Your task to perform on an android device: remove spam from my inbox in the gmail app Image 0: 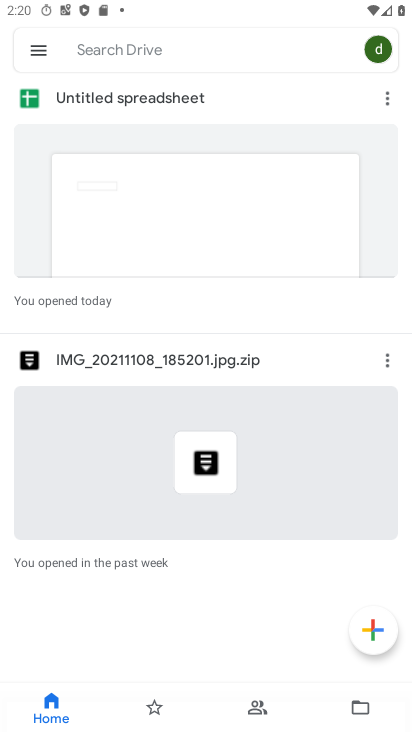
Step 0: press back button
Your task to perform on an android device: remove spam from my inbox in the gmail app Image 1: 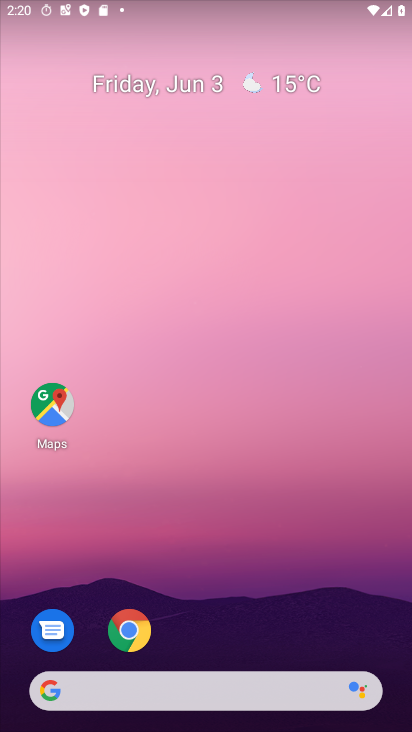
Step 1: drag from (265, 213) to (265, 22)
Your task to perform on an android device: remove spam from my inbox in the gmail app Image 2: 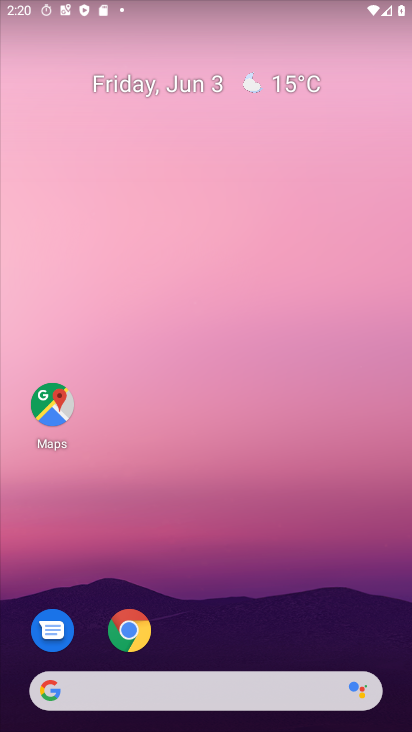
Step 2: drag from (362, 598) to (367, 45)
Your task to perform on an android device: remove spam from my inbox in the gmail app Image 3: 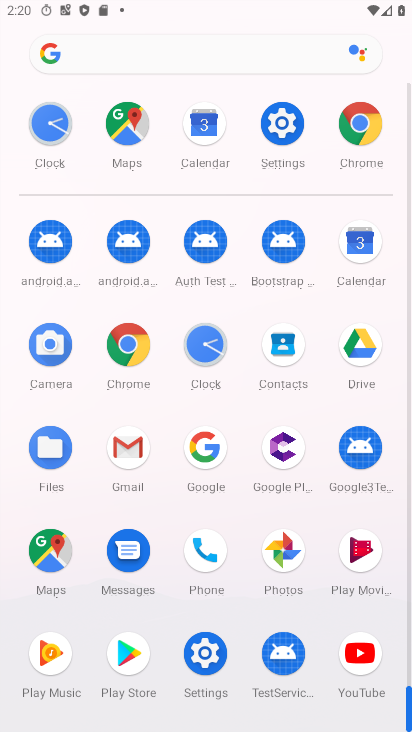
Step 3: drag from (12, 551) to (5, 213)
Your task to perform on an android device: remove spam from my inbox in the gmail app Image 4: 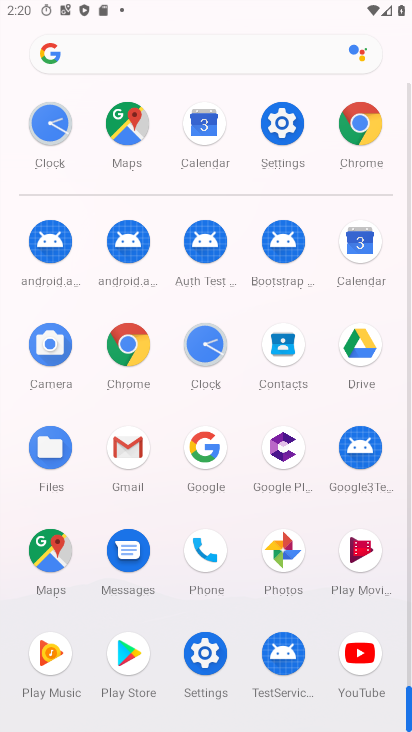
Step 4: click (130, 442)
Your task to perform on an android device: remove spam from my inbox in the gmail app Image 5: 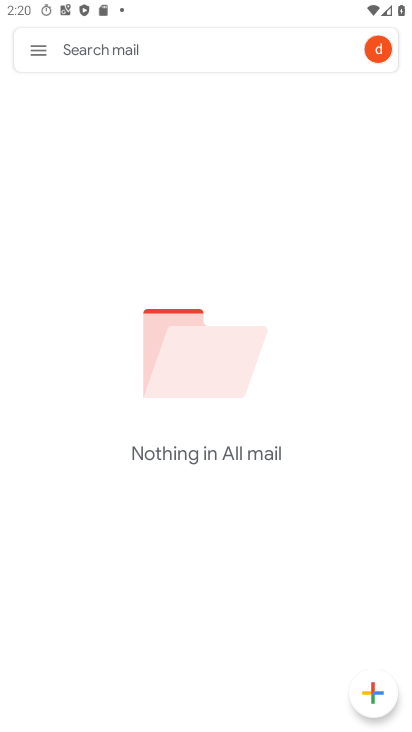
Step 5: click (44, 57)
Your task to perform on an android device: remove spam from my inbox in the gmail app Image 6: 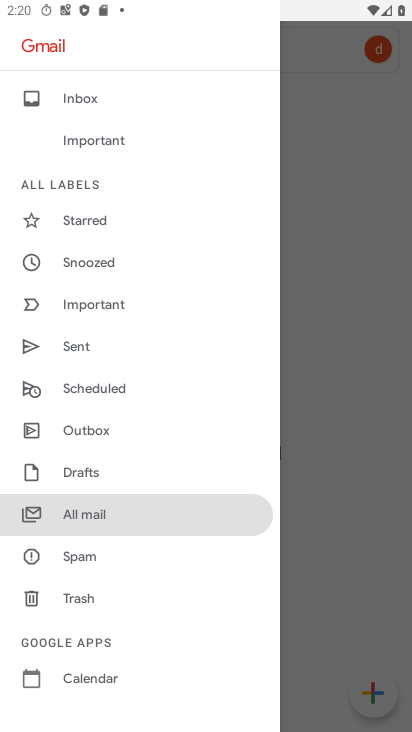
Step 6: click (102, 553)
Your task to perform on an android device: remove spam from my inbox in the gmail app Image 7: 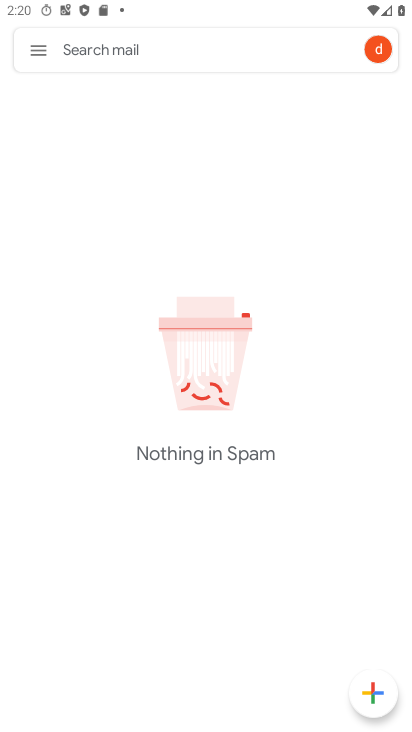
Step 7: task complete